Your task to perform on an android device: What's on my calendar tomorrow? Image 0: 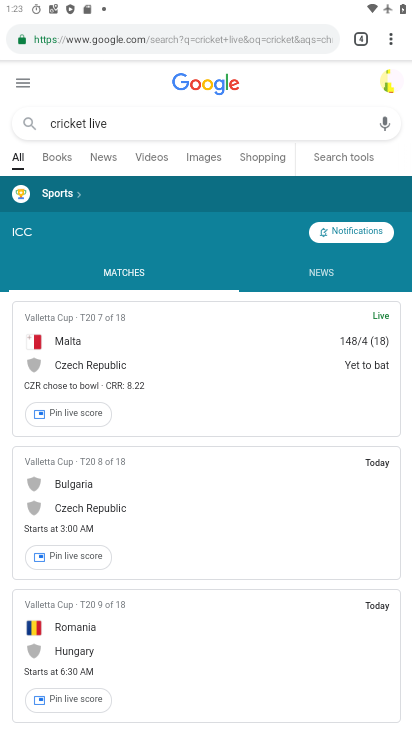
Step 0: press home button
Your task to perform on an android device: What's on my calendar tomorrow? Image 1: 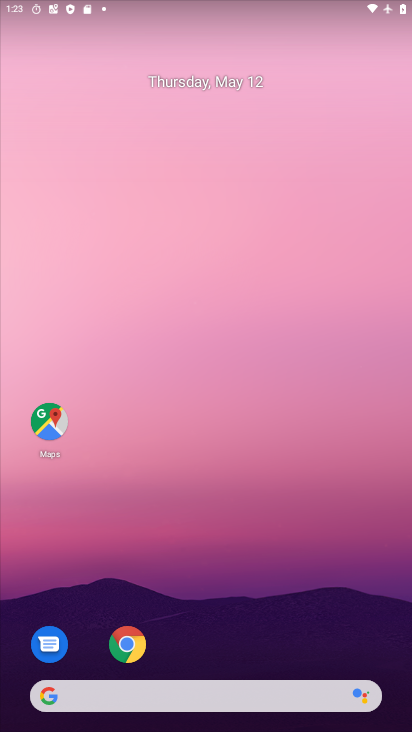
Step 1: click (187, 87)
Your task to perform on an android device: What's on my calendar tomorrow? Image 2: 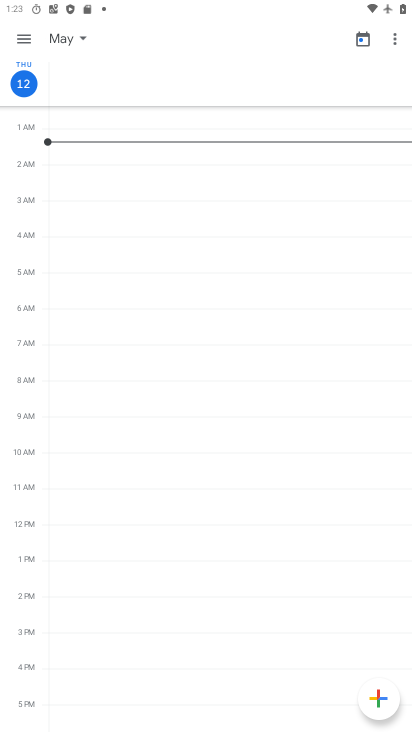
Step 2: click (83, 33)
Your task to perform on an android device: What's on my calendar tomorrow? Image 3: 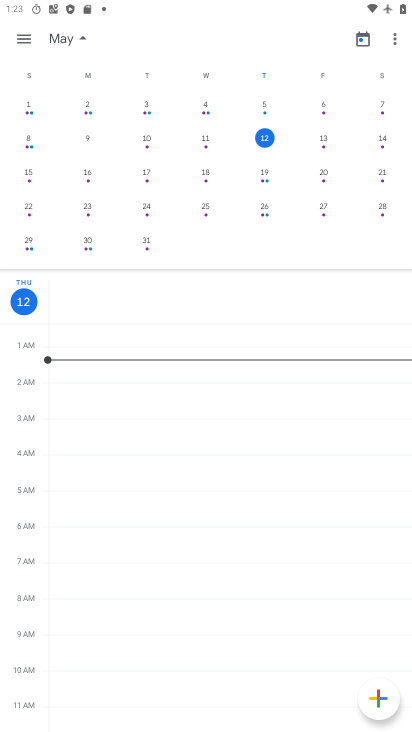
Step 3: click (320, 140)
Your task to perform on an android device: What's on my calendar tomorrow? Image 4: 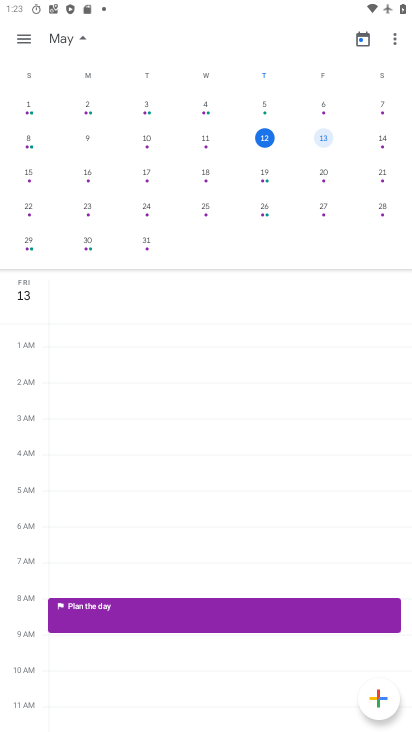
Step 4: drag from (24, 504) to (45, 242)
Your task to perform on an android device: What's on my calendar tomorrow? Image 5: 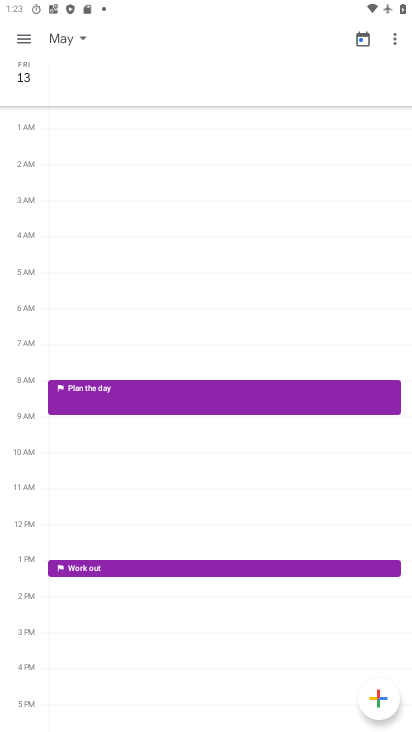
Step 5: drag from (13, 615) to (59, 302)
Your task to perform on an android device: What's on my calendar tomorrow? Image 6: 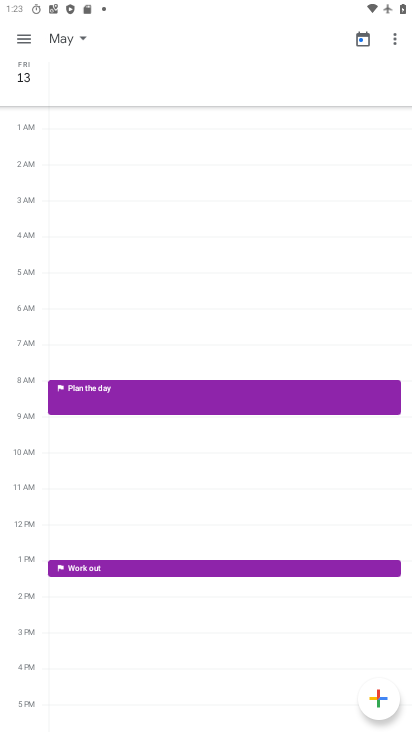
Step 6: click (0, 377)
Your task to perform on an android device: What's on my calendar tomorrow? Image 7: 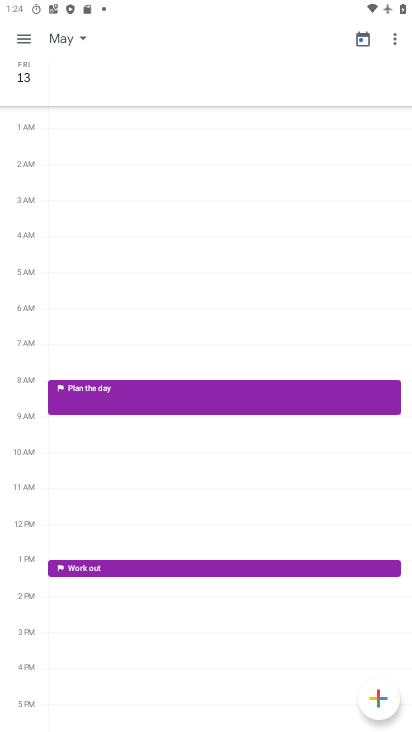
Step 7: task complete